Your task to perform on an android device: delete location history Image 0: 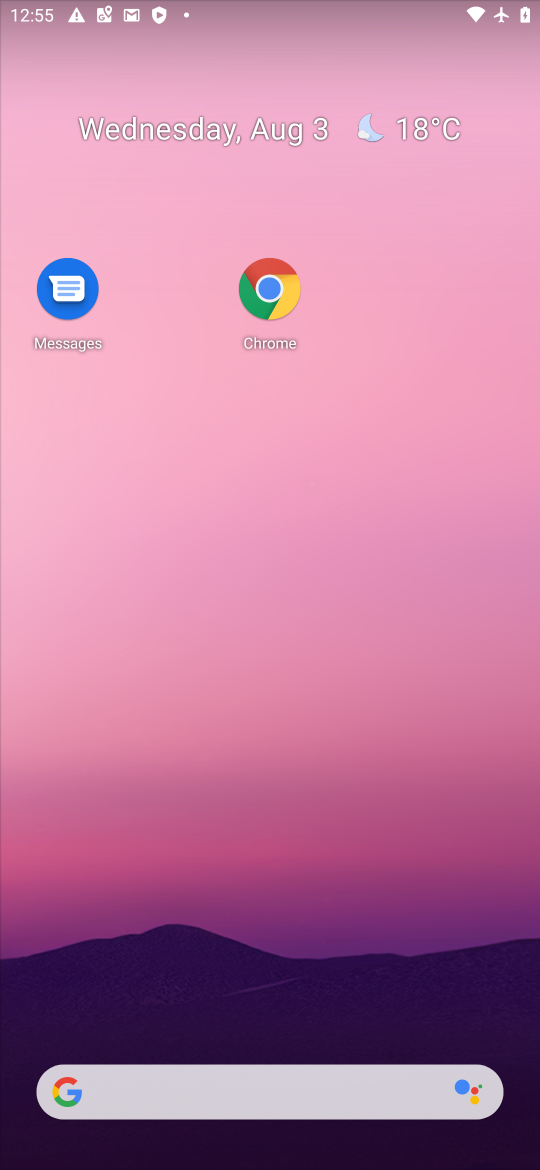
Step 0: drag from (362, 1011) to (405, 87)
Your task to perform on an android device: delete location history Image 1: 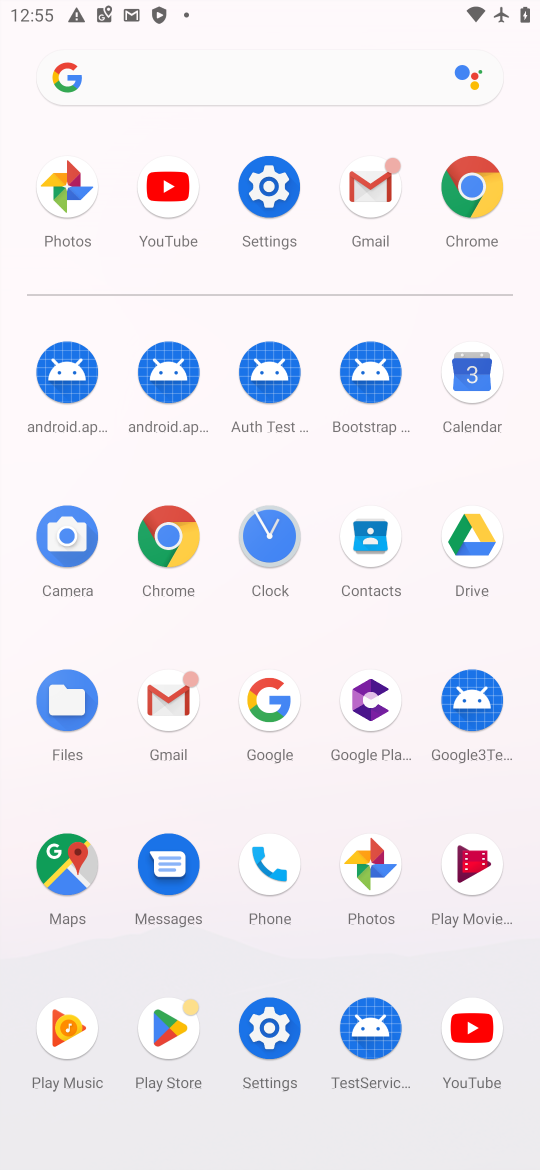
Step 1: click (299, 244)
Your task to perform on an android device: delete location history Image 2: 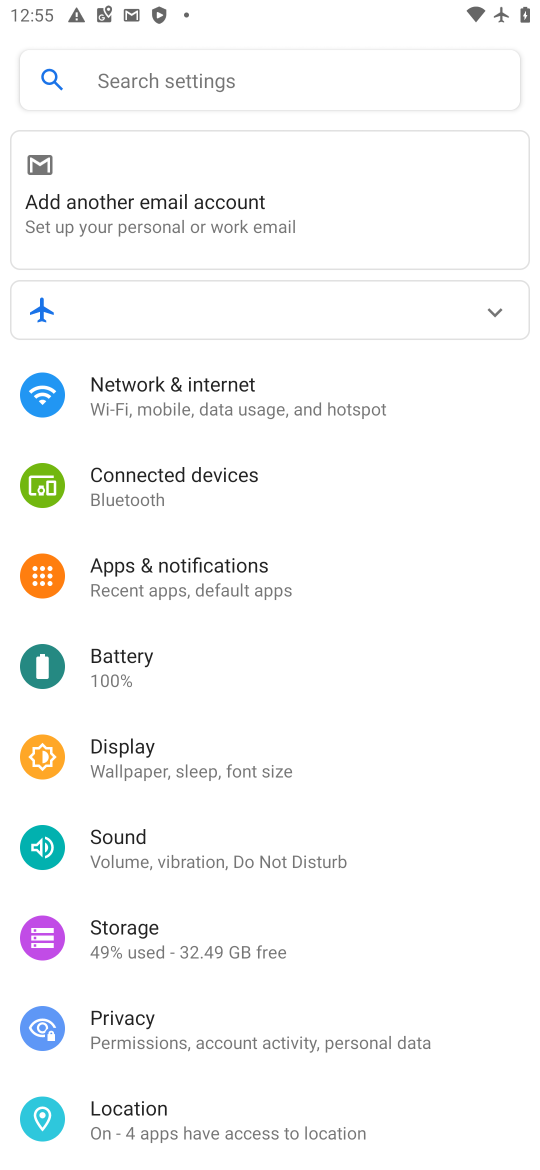
Step 2: click (243, 1119)
Your task to perform on an android device: delete location history Image 3: 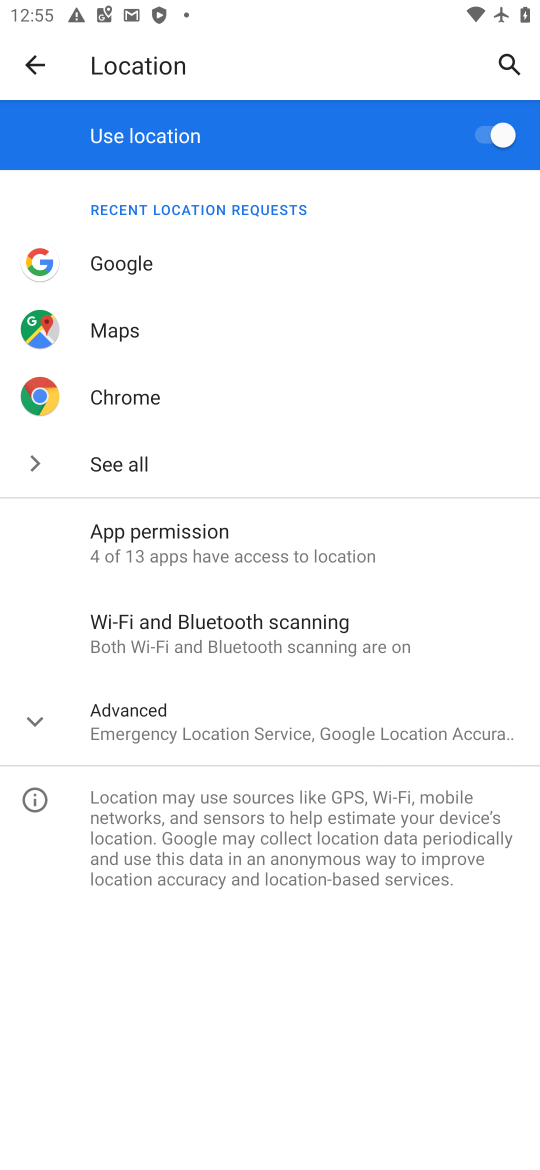
Step 3: click (213, 727)
Your task to perform on an android device: delete location history Image 4: 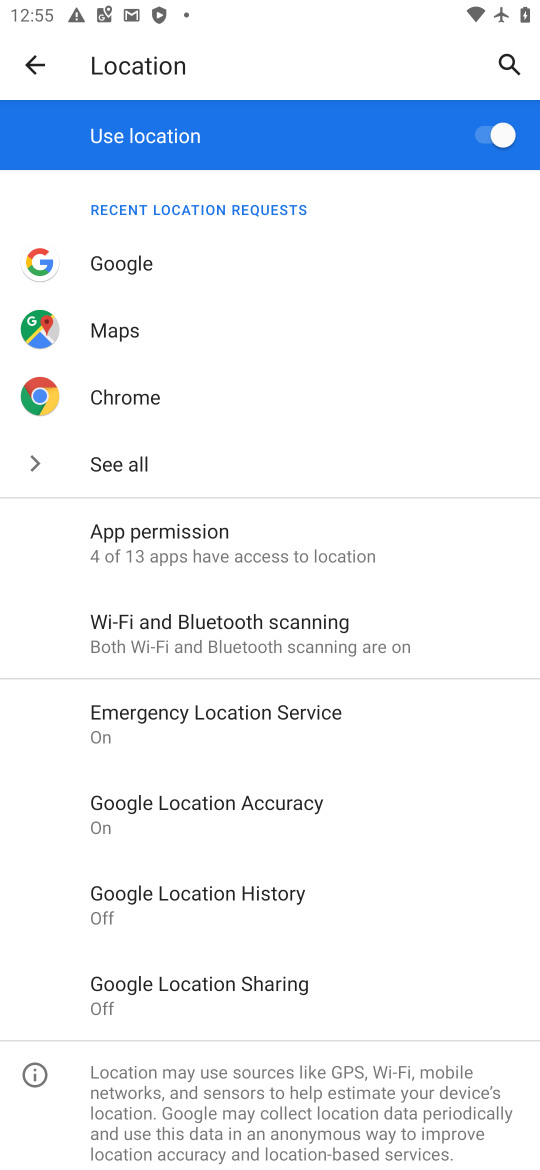
Step 4: task complete